Your task to perform on an android device: Show the shopping cart on bestbuy.com. Add "logitech g903" to the cart on bestbuy.com, then select checkout. Image 0: 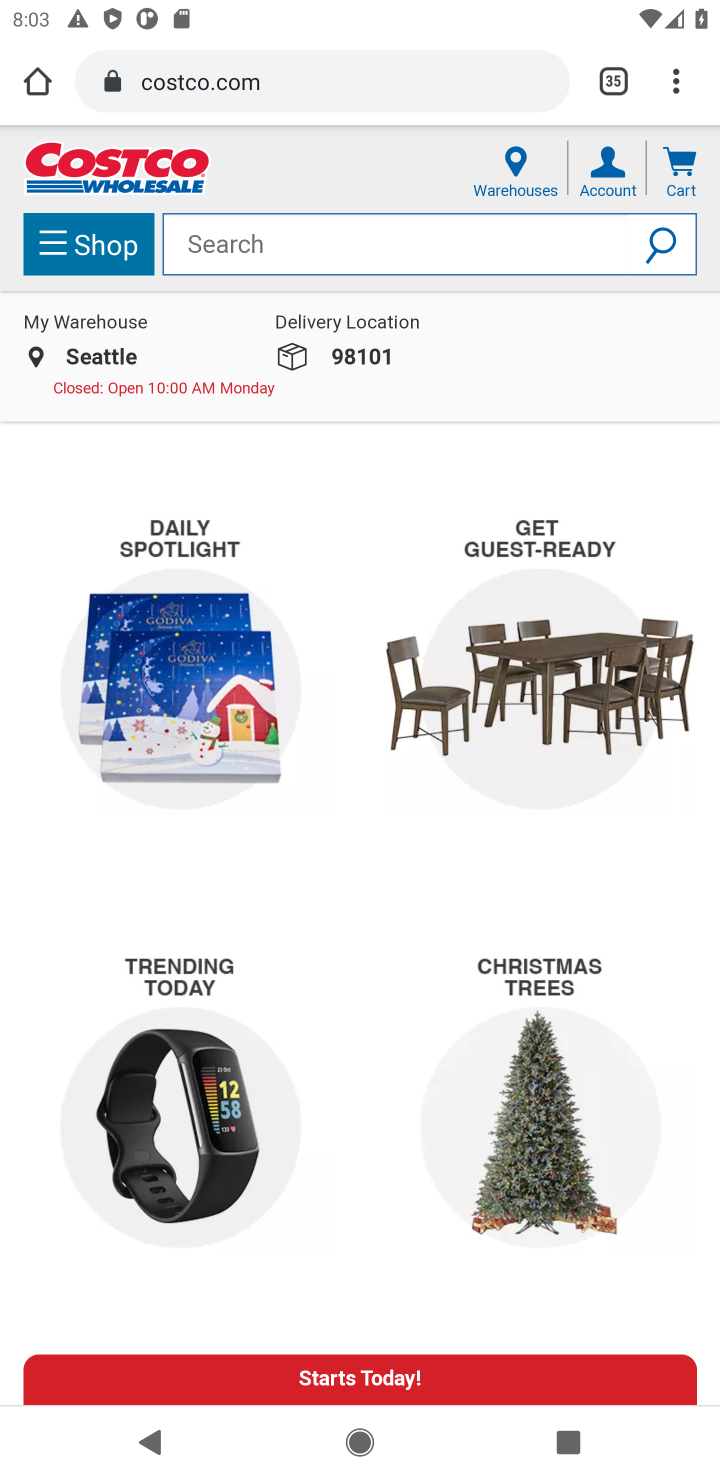
Step 0: press home button
Your task to perform on an android device: Show the shopping cart on bestbuy.com. Add "logitech g903" to the cart on bestbuy.com, then select checkout. Image 1: 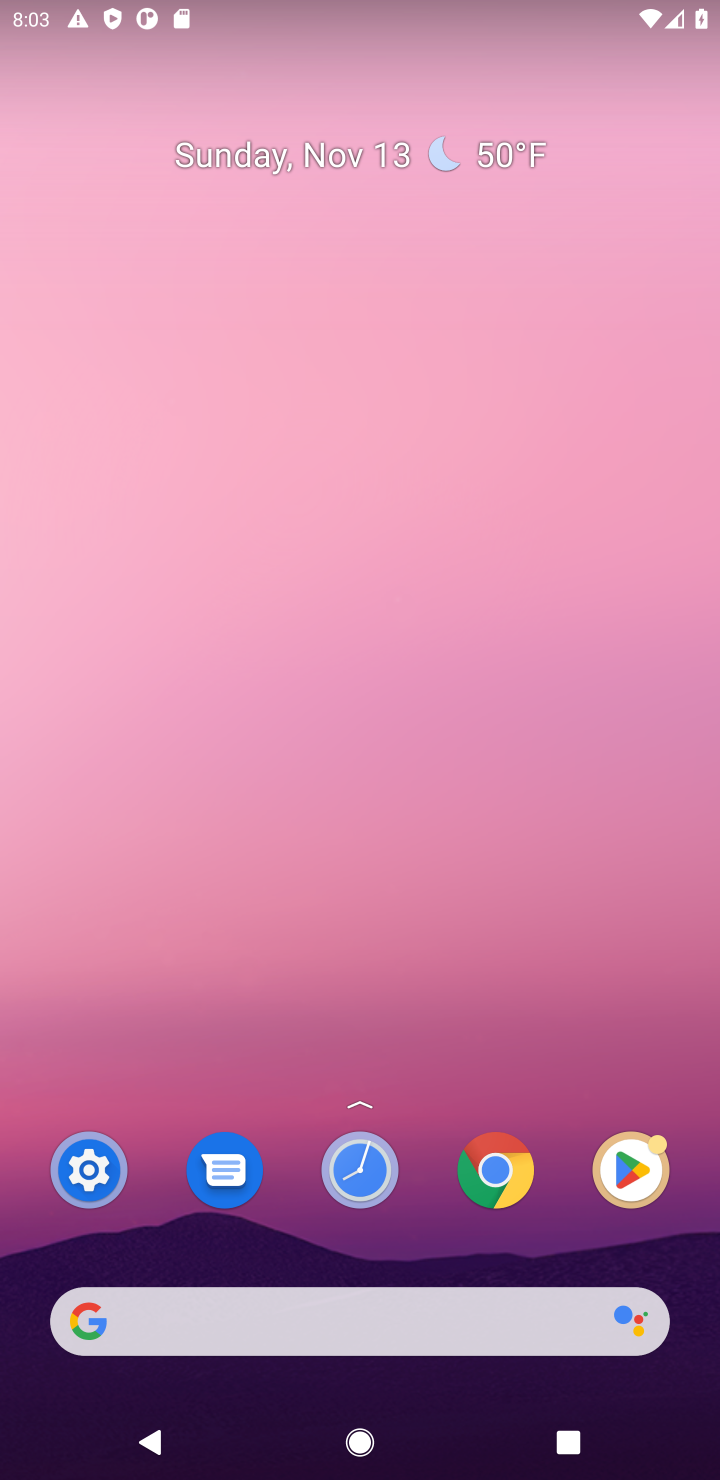
Step 1: click (387, 1344)
Your task to perform on an android device: Show the shopping cart on bestbuy.com. Add "logitech g903" to the cart on bestbuy.com, then select checkout. Image 2: 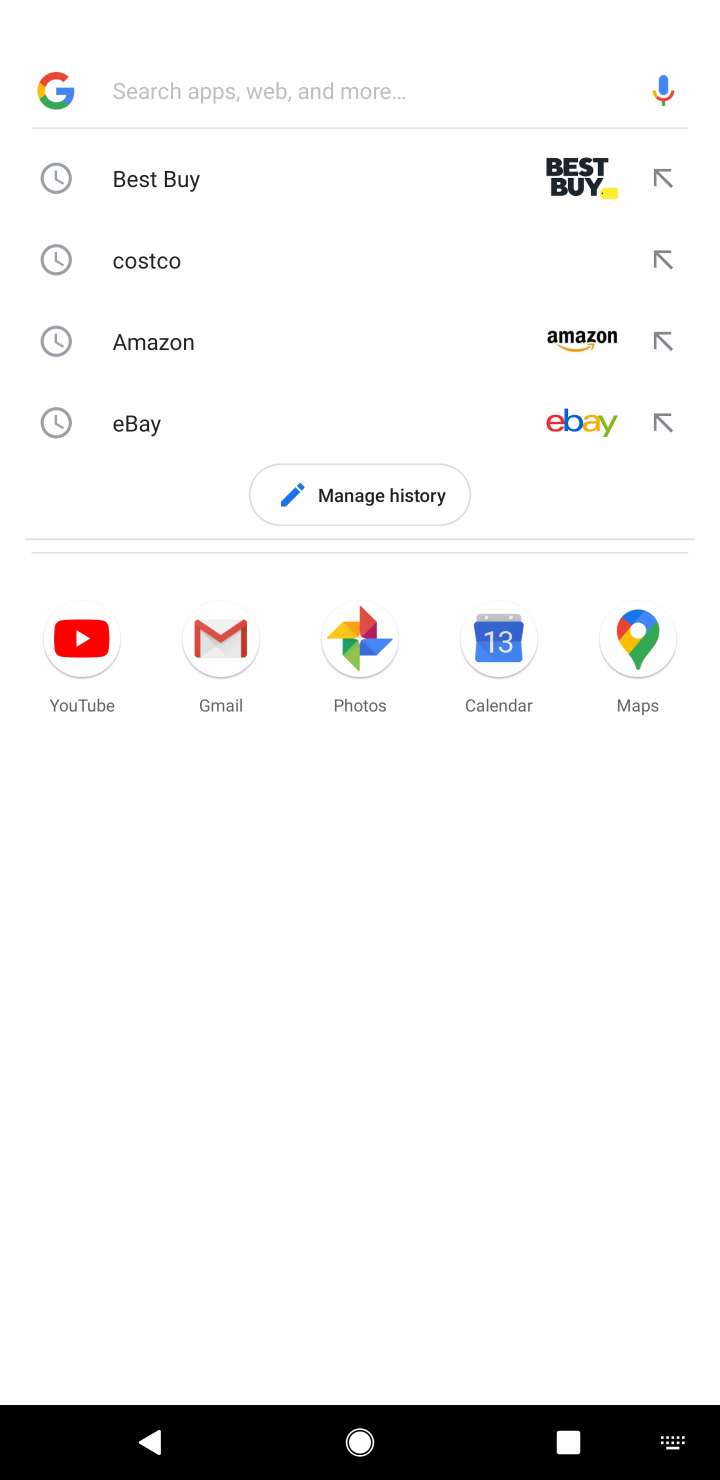
Step 2: type "logitech g pro"
Your task to perform on an android device: Show the shopping cart on bestbuy.com. Add "logitech g903" to the cart on bestbuy.com, then select checkout. Image 3: 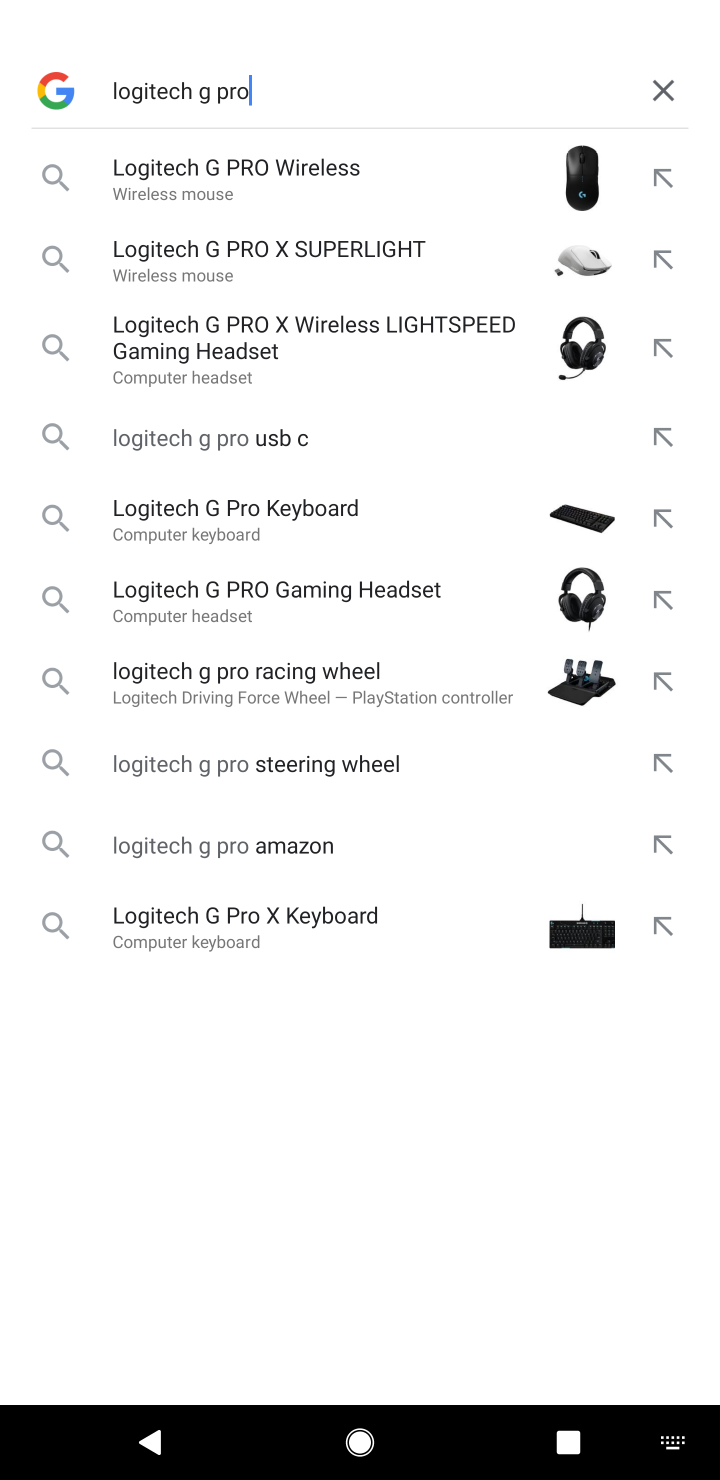
Step 3: click (264, 177)
Your task to perform on an android device: Show the shopping cart on bestbuy.com. Add "logitech g903" to the cart on bestbuy.com, then select checkout. Image 4: 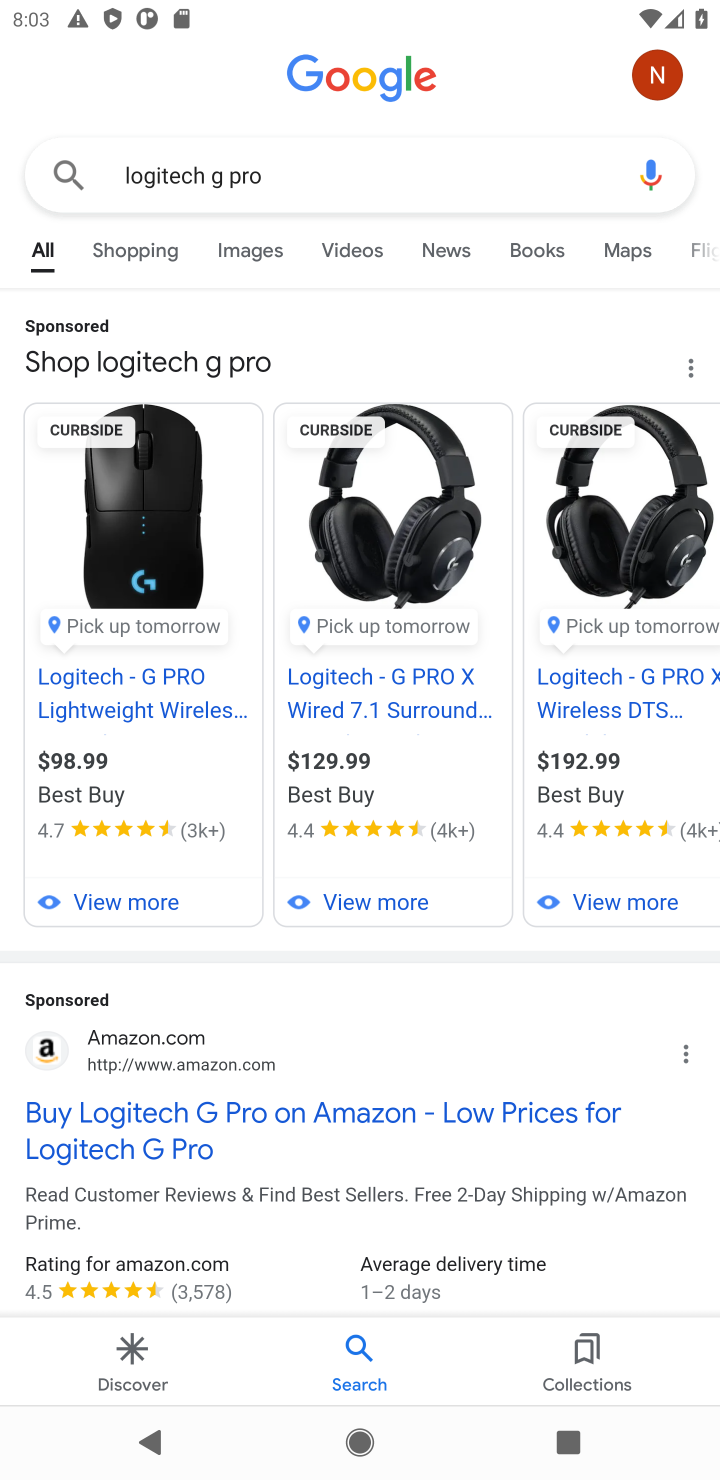
Step 4: task complete